Your task to perform on an android device: Go to Google Image 0: 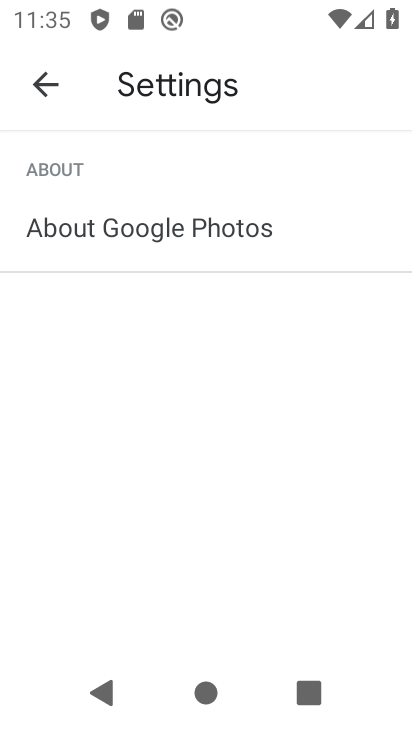
Step 0: press home button
Your task to perform on an android device: Go to Google Image 1: 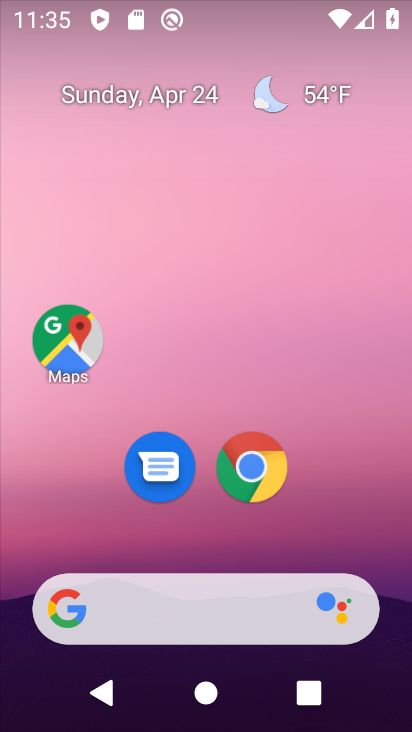
Step 1: drag from (190, 534) to (222, 195)
Your task to perform on an android device: Go to Google Image 2: 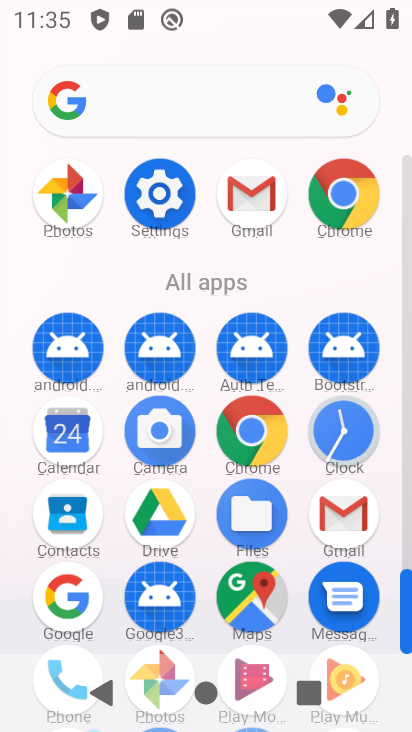
Step 2: click (79, 589)
Your task to perform on an android device: Go to Google Image 3: 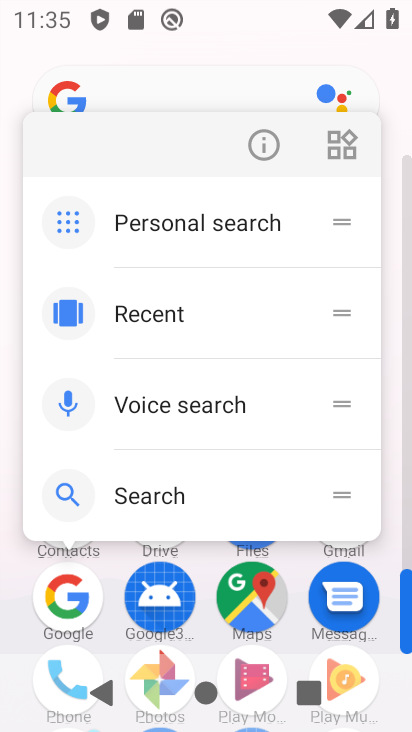
Step 3: click (272, 149)
Your task to perform on an android device: Go to Google Image 4: 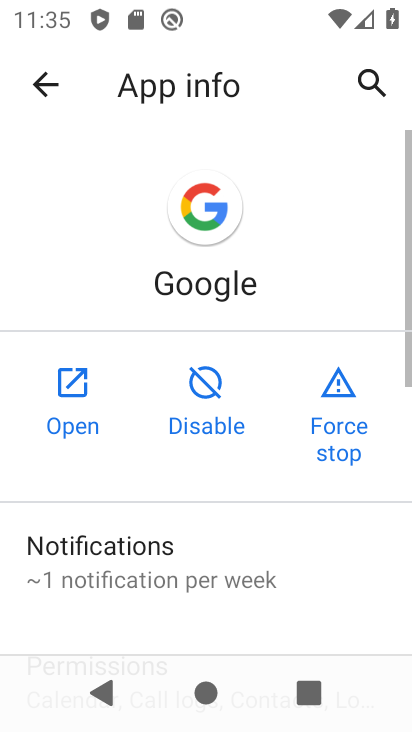
Step 4: click (81, 378)
Your task to perform on an android device: Go to Google Image 5: 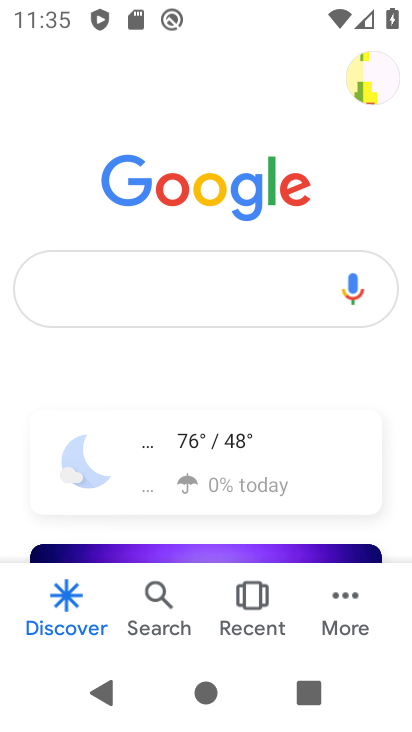
Step 5: task complete